Your task to perform on an android device: allow notifications from all sites in the chrome app Image 0: 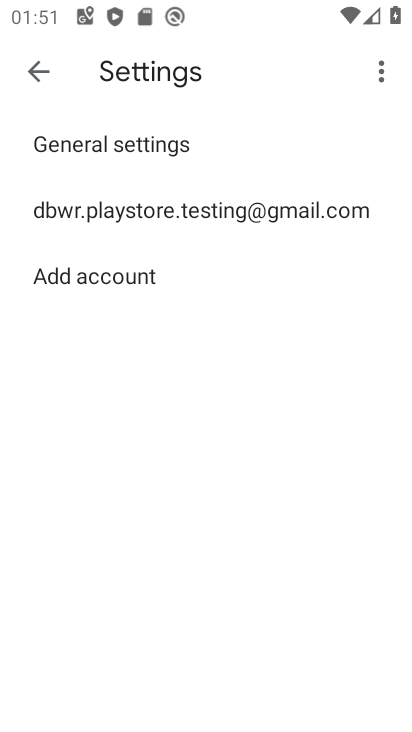
Step 0: press home button
Your task to perform on an android device: allow notifications from all sites in the chrome app Image 1: 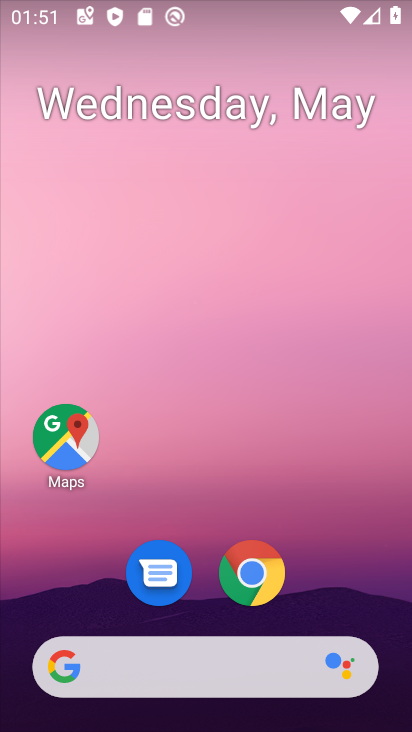
Step 1: drag from (321, 619) to (320, 189)
Your task to perform on an android device: allow notifications from all sites in the chrome app Image 2: 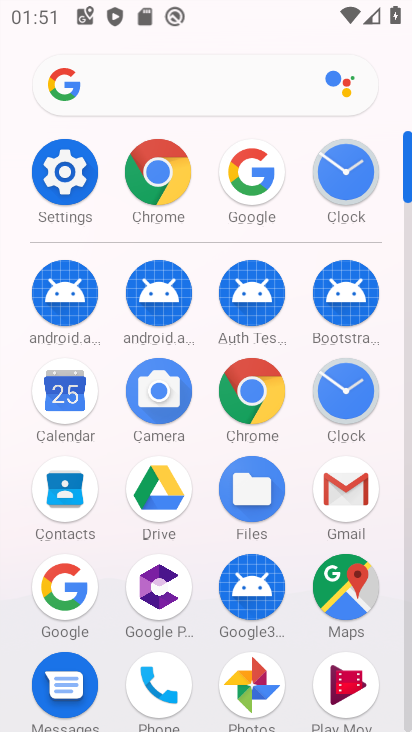
Step 2: click (62, 179)
Your task to perform on an android device: allow notifications from all sites in the chrome app Image 3: 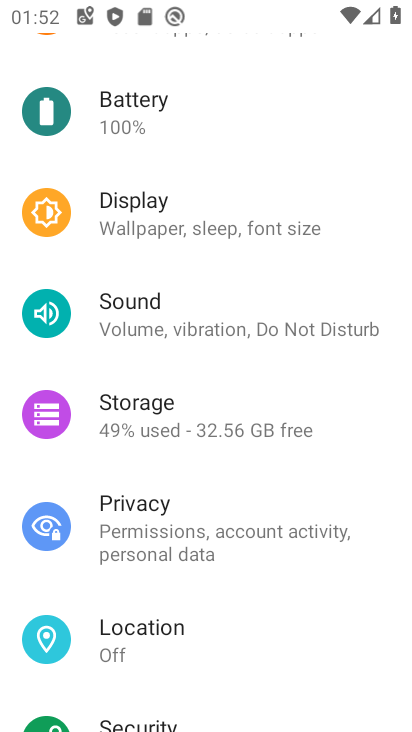
Step 3: press home button
Your task to perform on an android device: allow notifications from all sites in the chrome app Image 4: 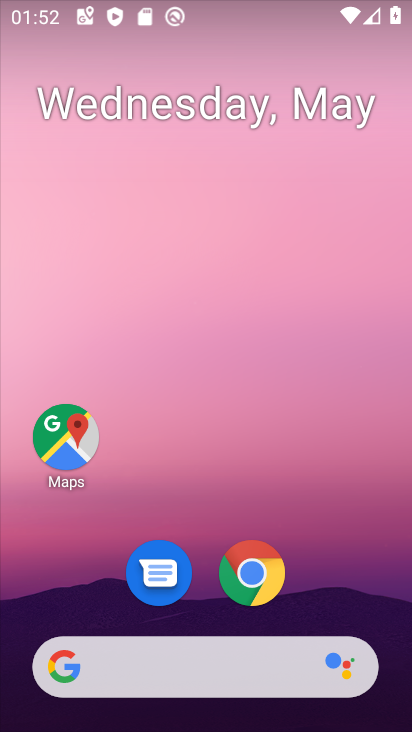
Step 4: click (253, 589)
Your task to perform on an android device: allow notifications from all sites in the chrome app Image 5: 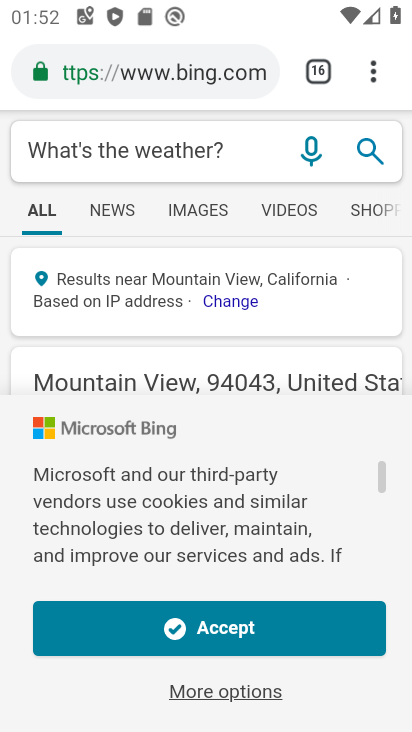
Step 5: click (369, 54)
Your task to perform on an android device: allow notifications from all sites in the chrome app Image 6: 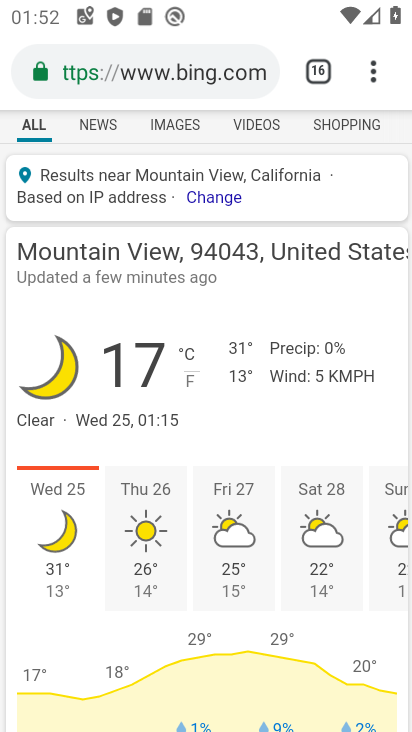
Step 6: click (369, 57)
Your task to perform on an android device: allow notifications from all sites in the chrome app Image 7: 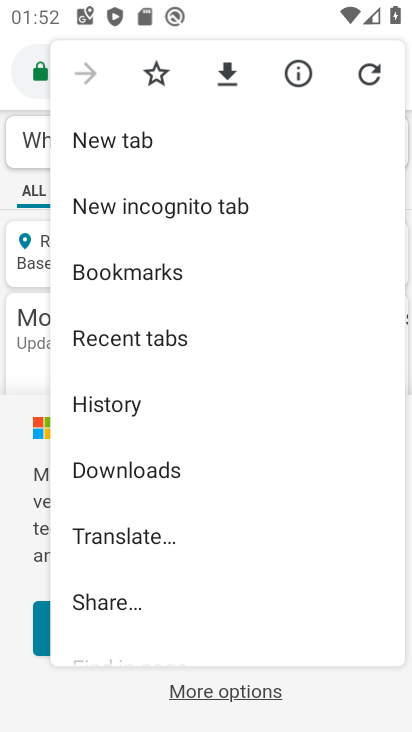
Step 7: drag from (198, 353) to (207, 205)
Your task to perform on an android device: allow notifications from all sites in the chrome app Image 8: 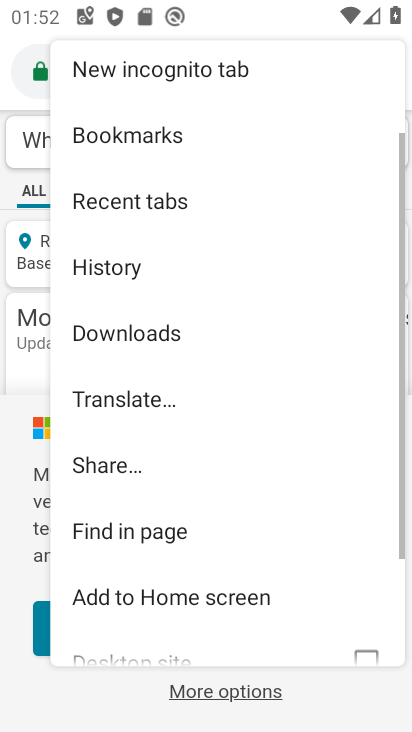
Step 8: click (237, 341)
Your task to perform on an android device: allow notifications from all sites in the chrome app Image 9: 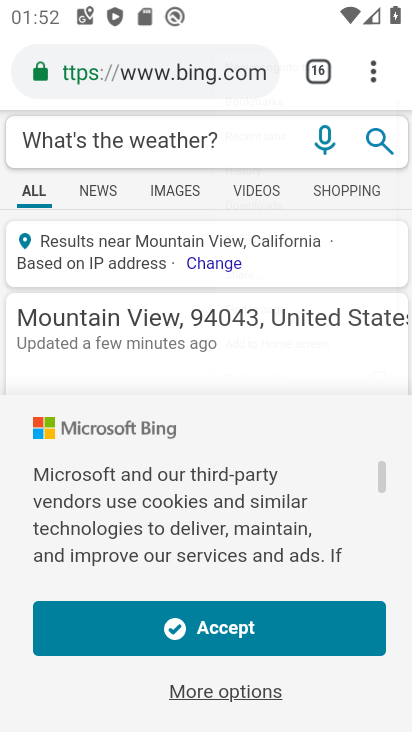
Step 9: drag from (260, 234) to (239, 332)
Your task to perform on an android device: allow notifications from all sites in the chrome app Image 10: 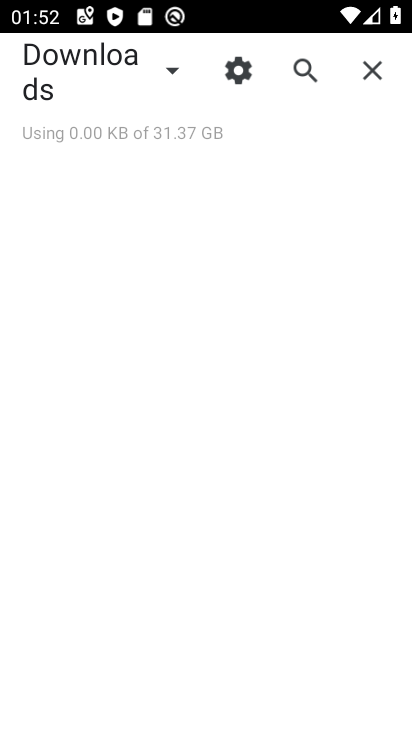
Step 10: click (366, 63)
Your task to perform on an android device: allow notifications from all sites in the chrome app Image 11: 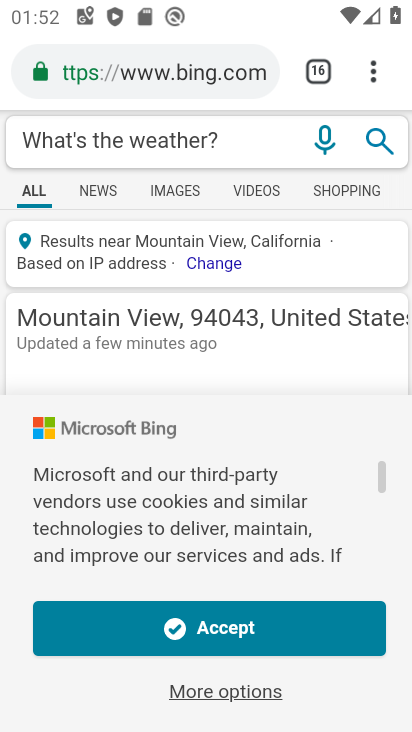
Step 11: click (378, 67)
Your task to perform on an android device: allow notifications from all sites in the chrome app Image 12: 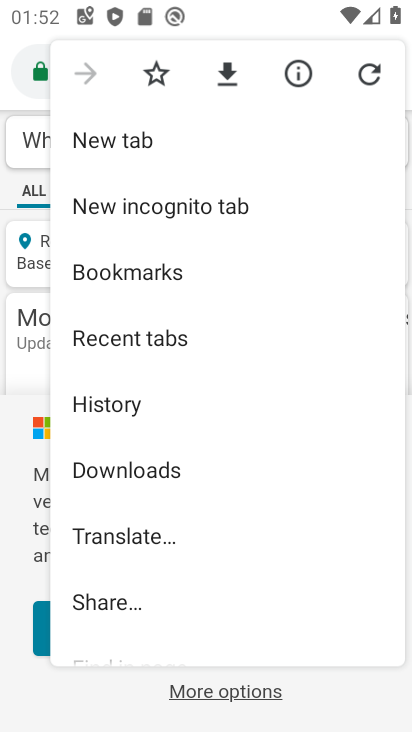
Step 12: drag from (193, 592) to (209, 143)
Your task to perform on an android device: allow notifications from all sites in the chrome app Image 13: 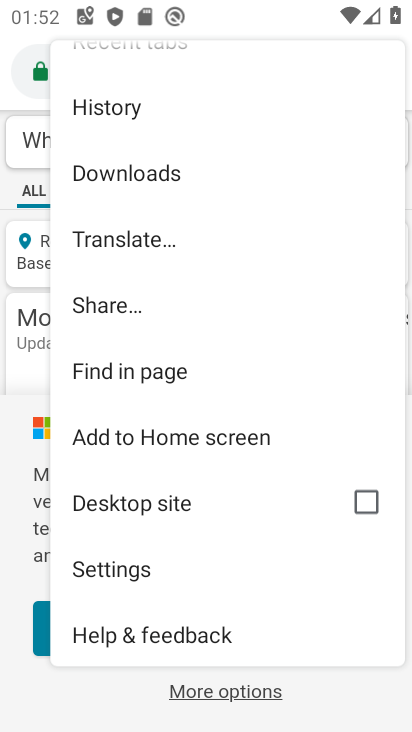
Step 13: click (145, 555)
Your task to perform on an android device: allow notifications from all sites in the chrome app Image 14: 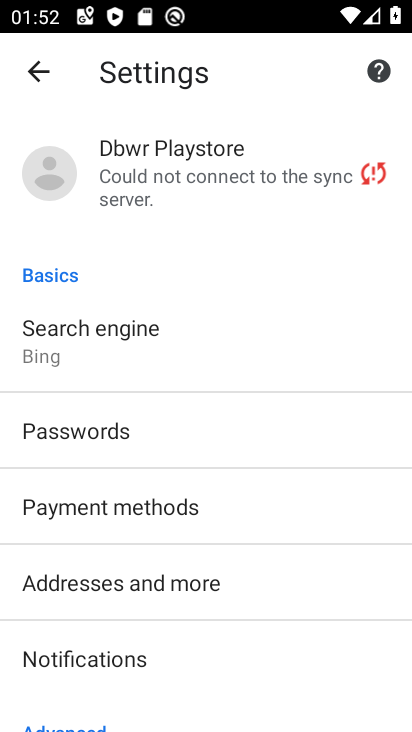
Step 14: drag from (199, 682) to (215, 270)
Your task to perform on an android device: allow notifications from all sites in the chrome app Image 15: 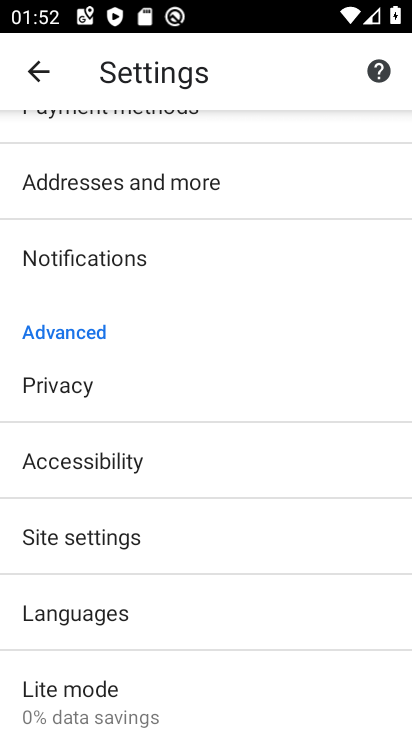
Step 15: click (140, 521)
Your task to perform on an android device: allow notifications from all sites in the chrome app Image 16: 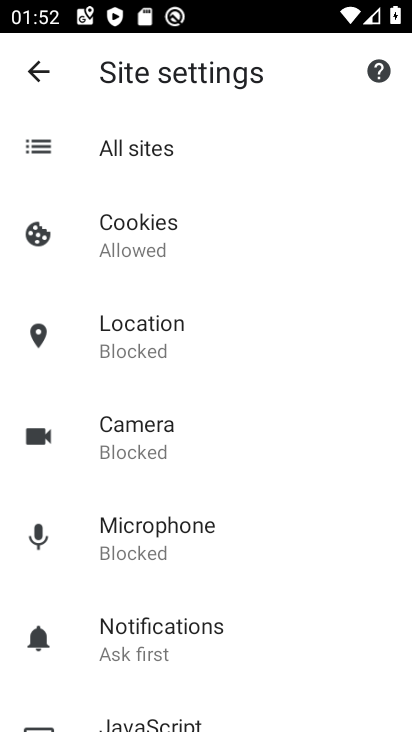
Step 16: task complete